Your task to perform on an android device: allow cookies in the chrome app Image 0: 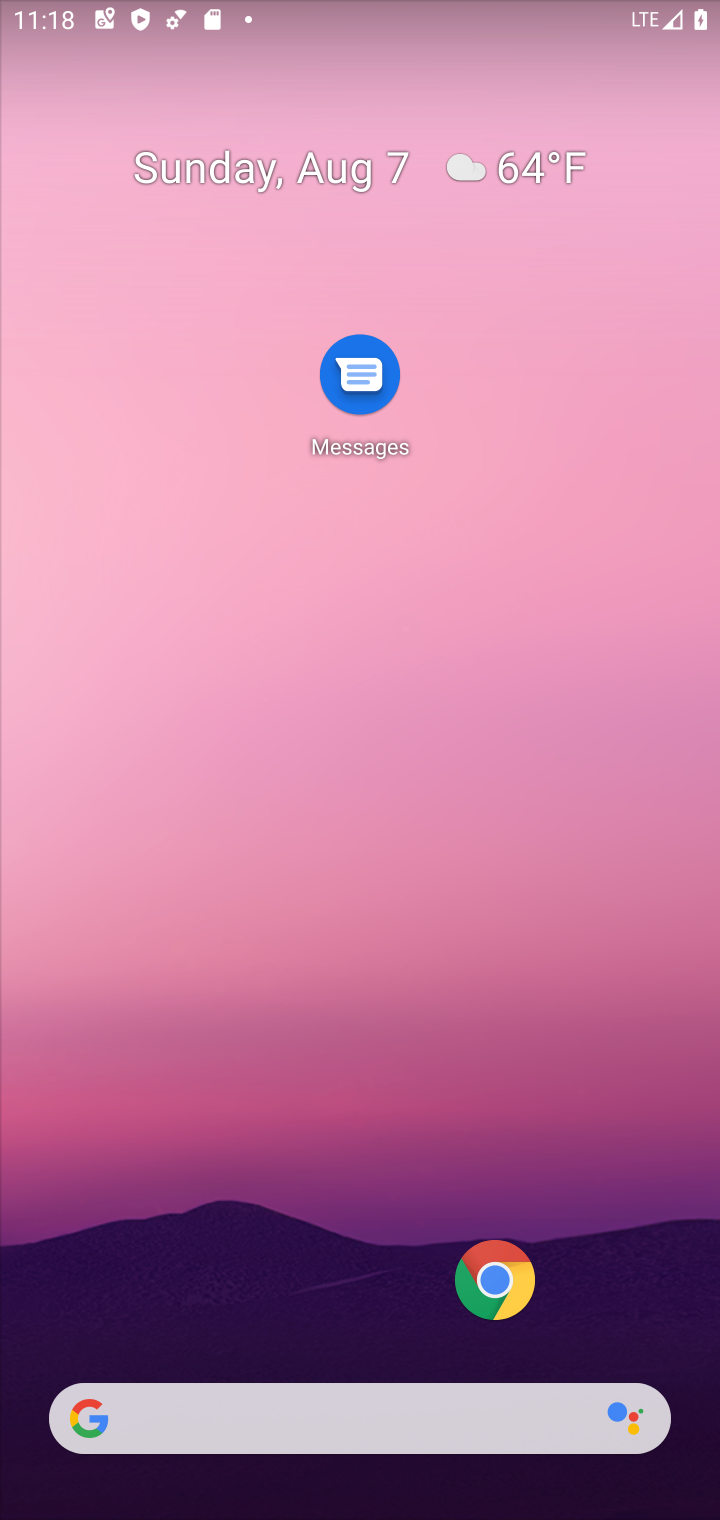
Step 0: click (539, 1259)
Your task to perform on an android device: allow cookies in the chrome app Image 1: 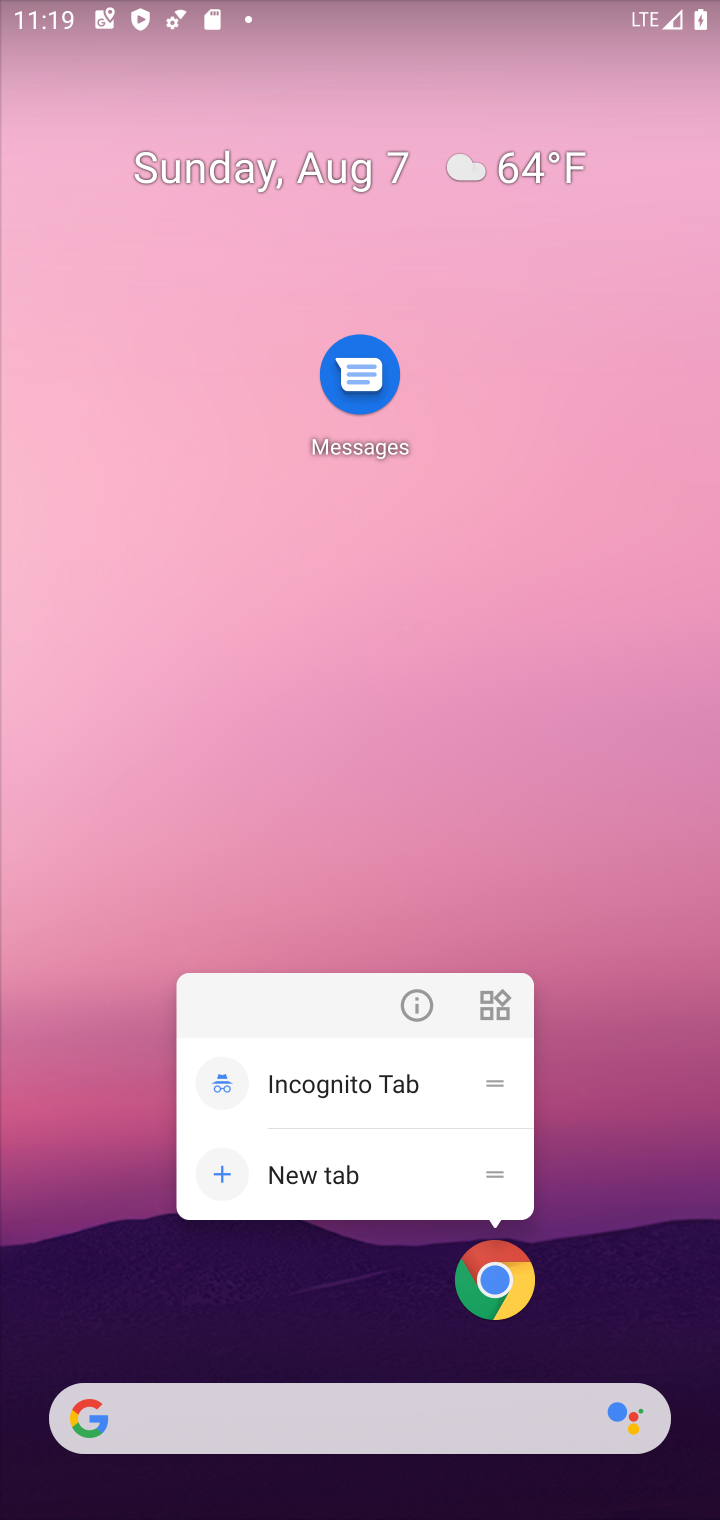
Step 1: click (521, 1313)
Your task to perform on an android device: allow cookies in the chrome app Image 2: 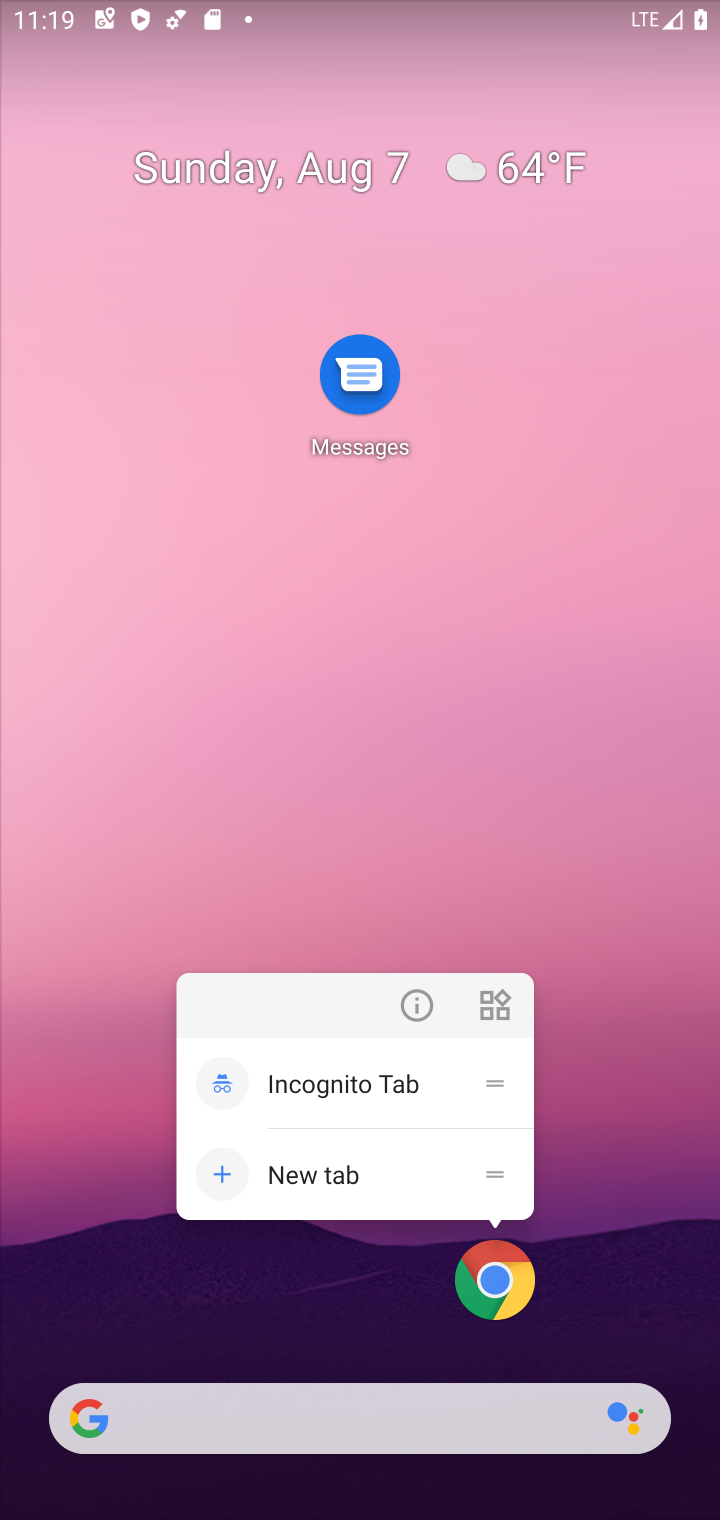
Step 2: click (451, 1305)
Your task to perform on an android device: allow cookies in the chrome app Image 3: 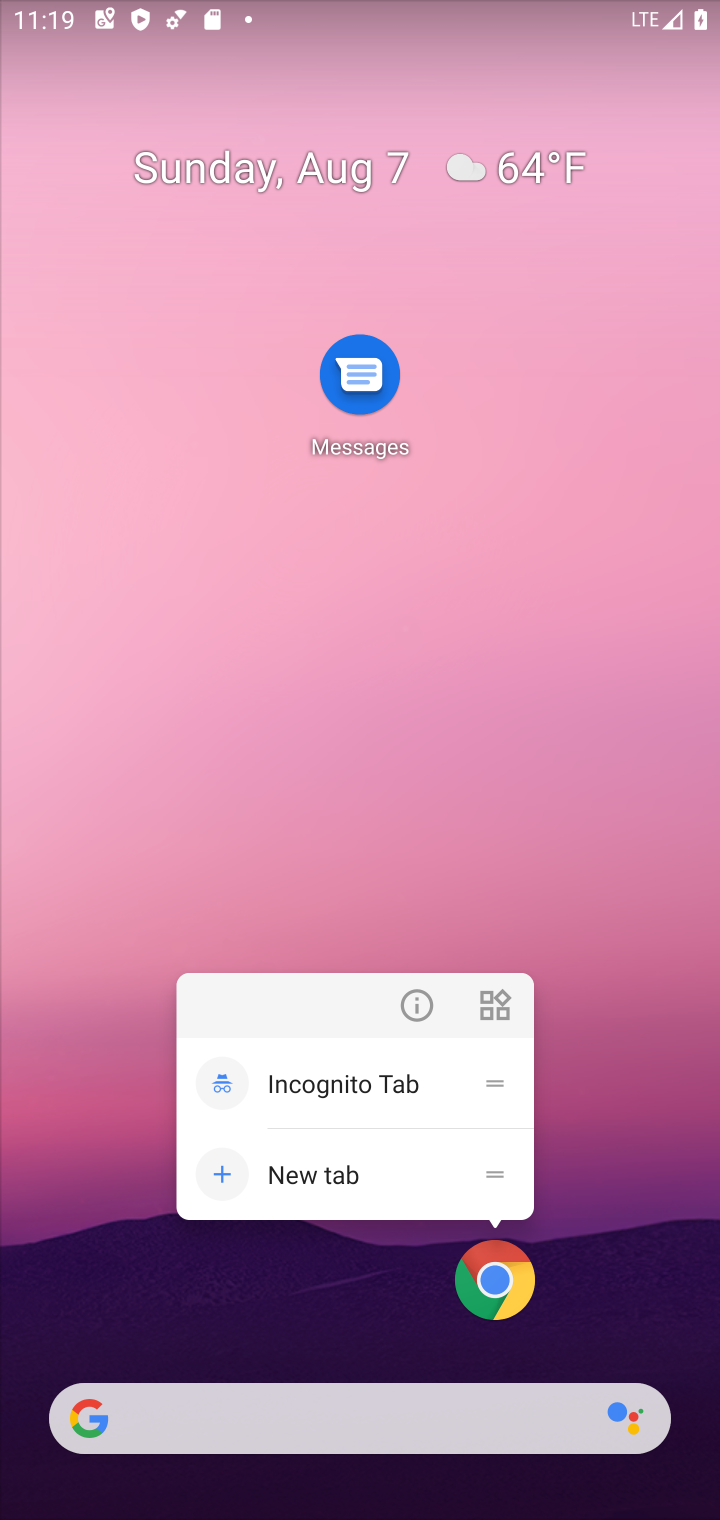
Step 3: click (508, 1288)
Your task to perform on an android device: allow cookies in the chrome app Image 4: 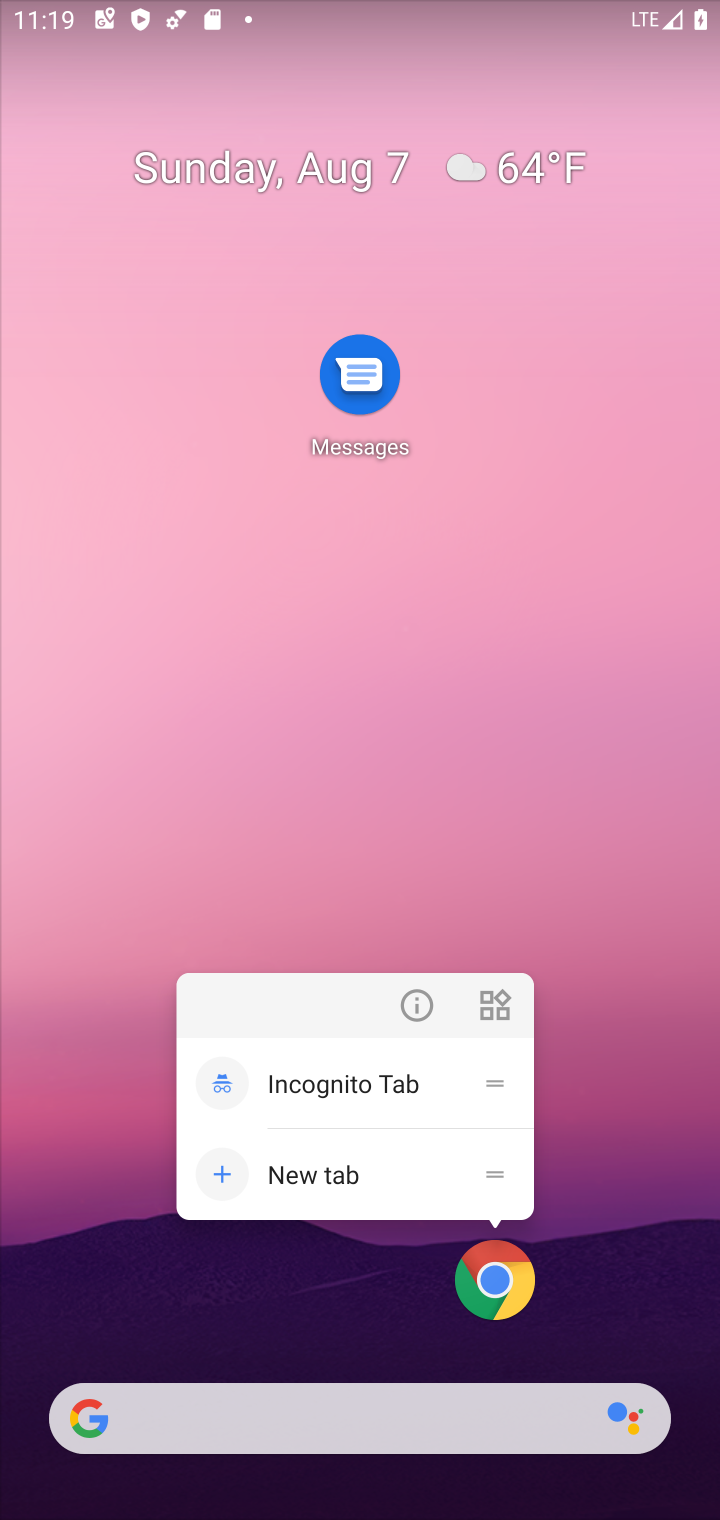
Step 4: click (508, 1288)
Your task to perform on an android device: allow cookies in the chrome app Image 5: 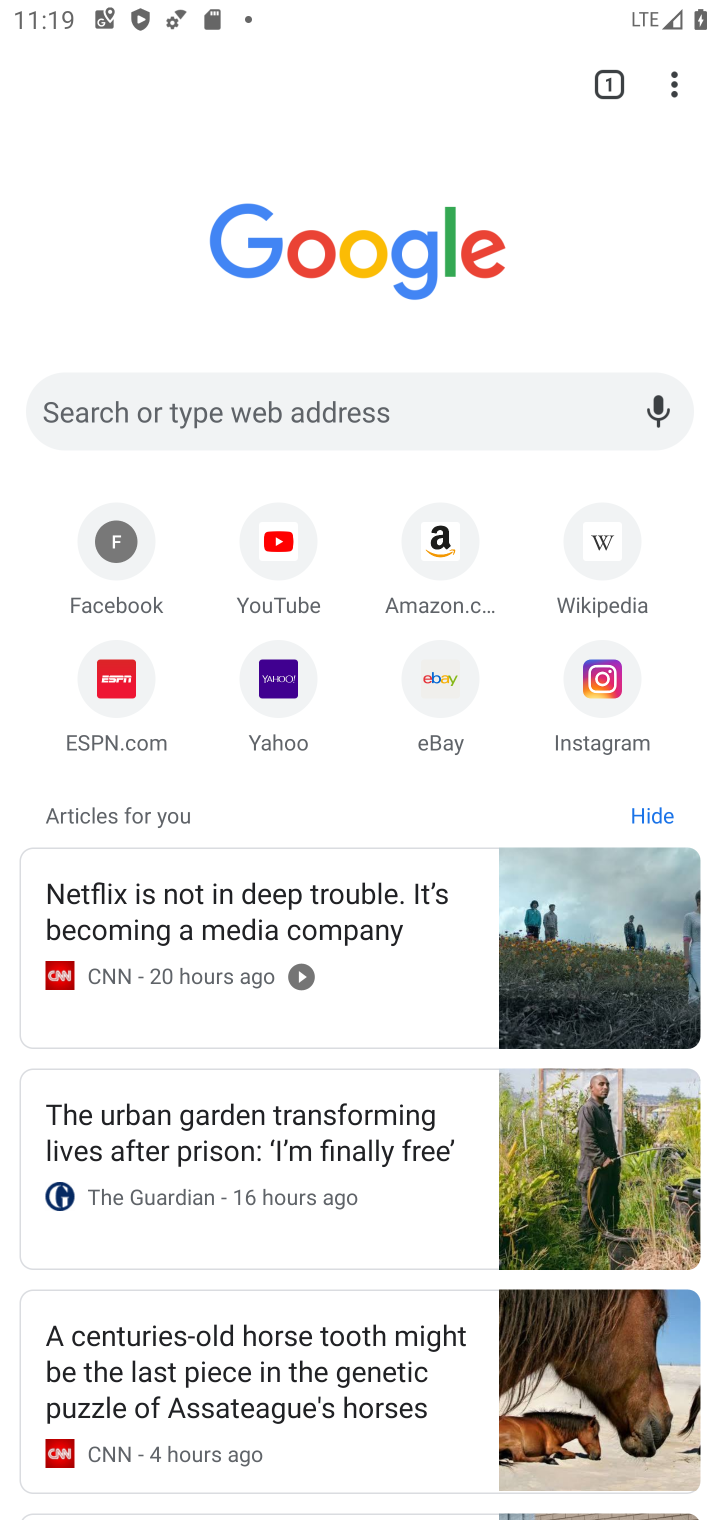
Step 5: click (530, 1259)
Your task to perform on an android device: allow cookies in the chrome app Image 6: 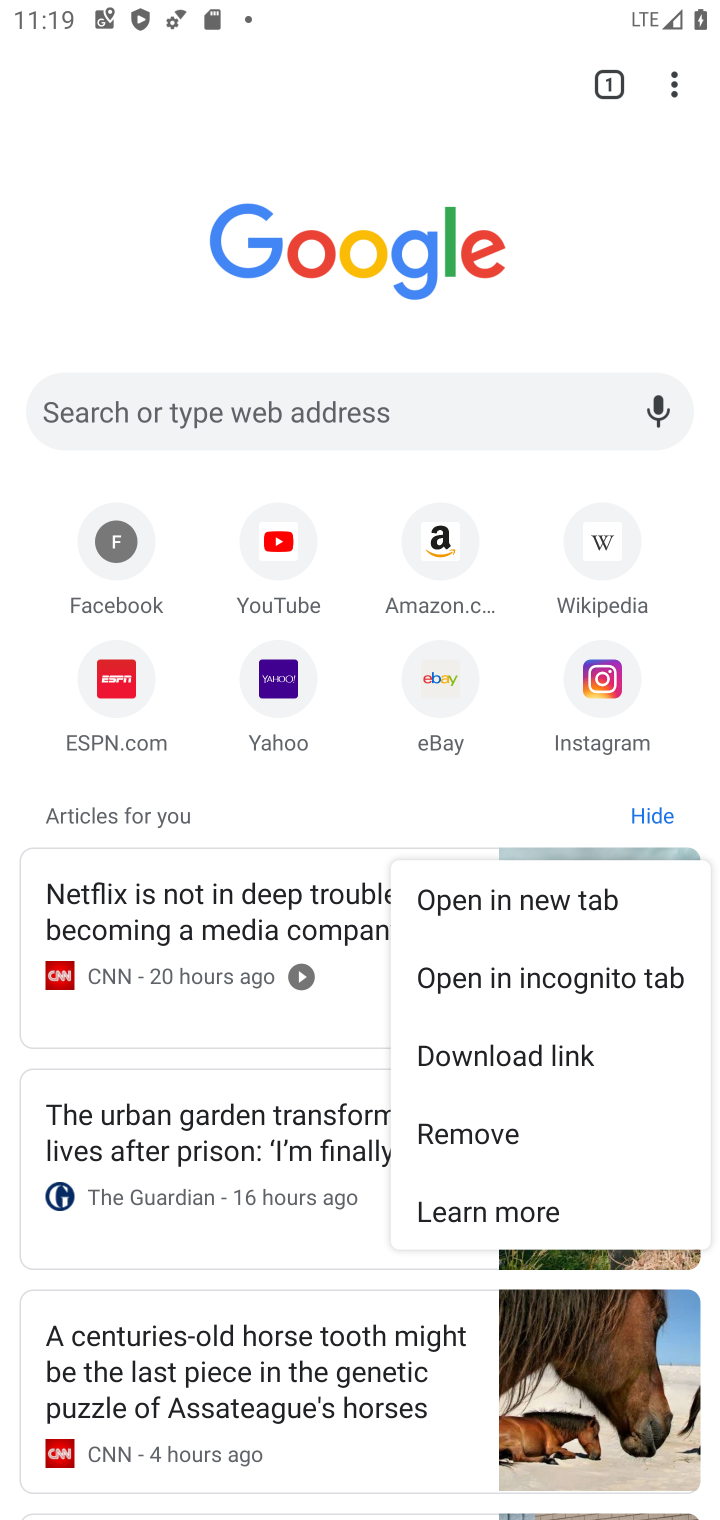
Step 6: click (173, 1279)
Your task to perform on an android device: allow cookies in the chrome app Image 7: 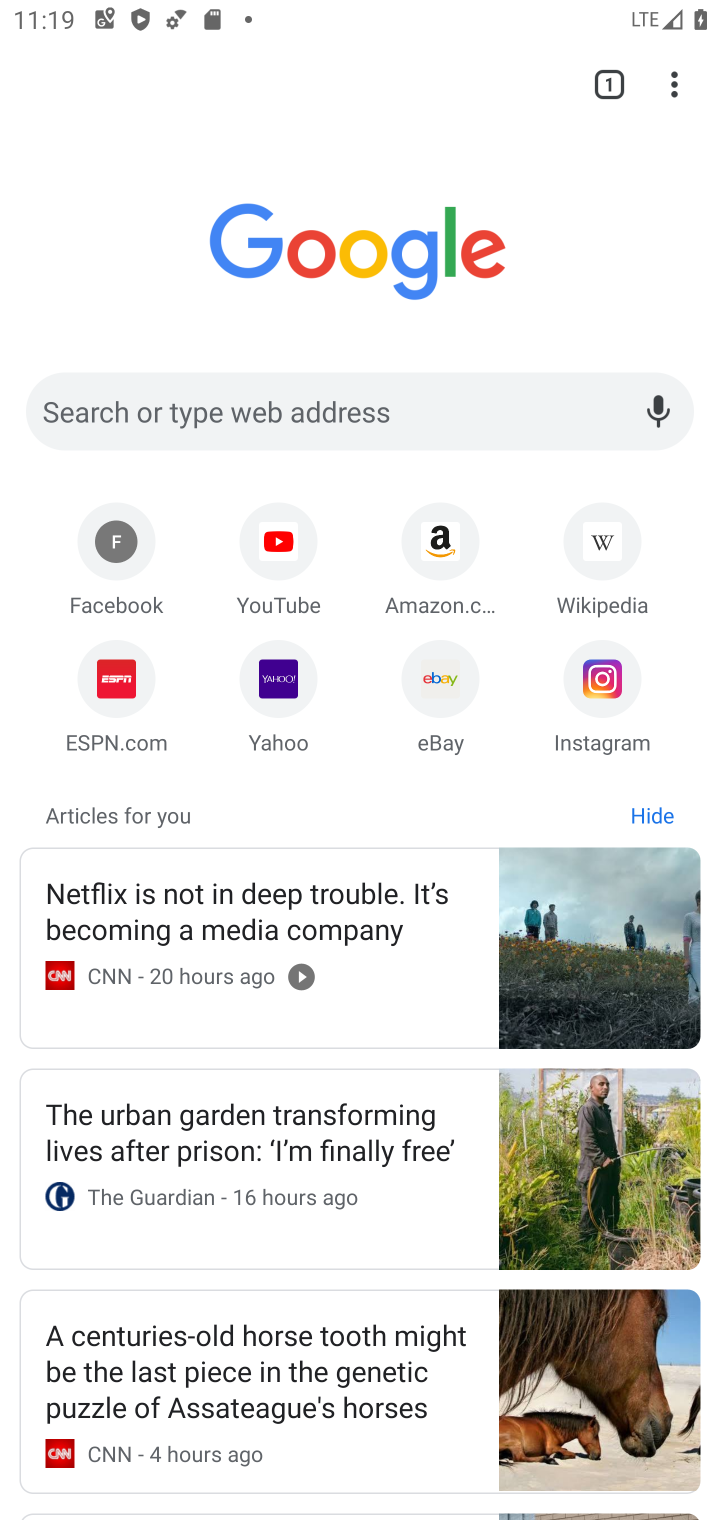
Step 7: drag from (665, 84) to (400, 694)
Your task to perform on an android device: allow cookies in the chrome app Image 8: 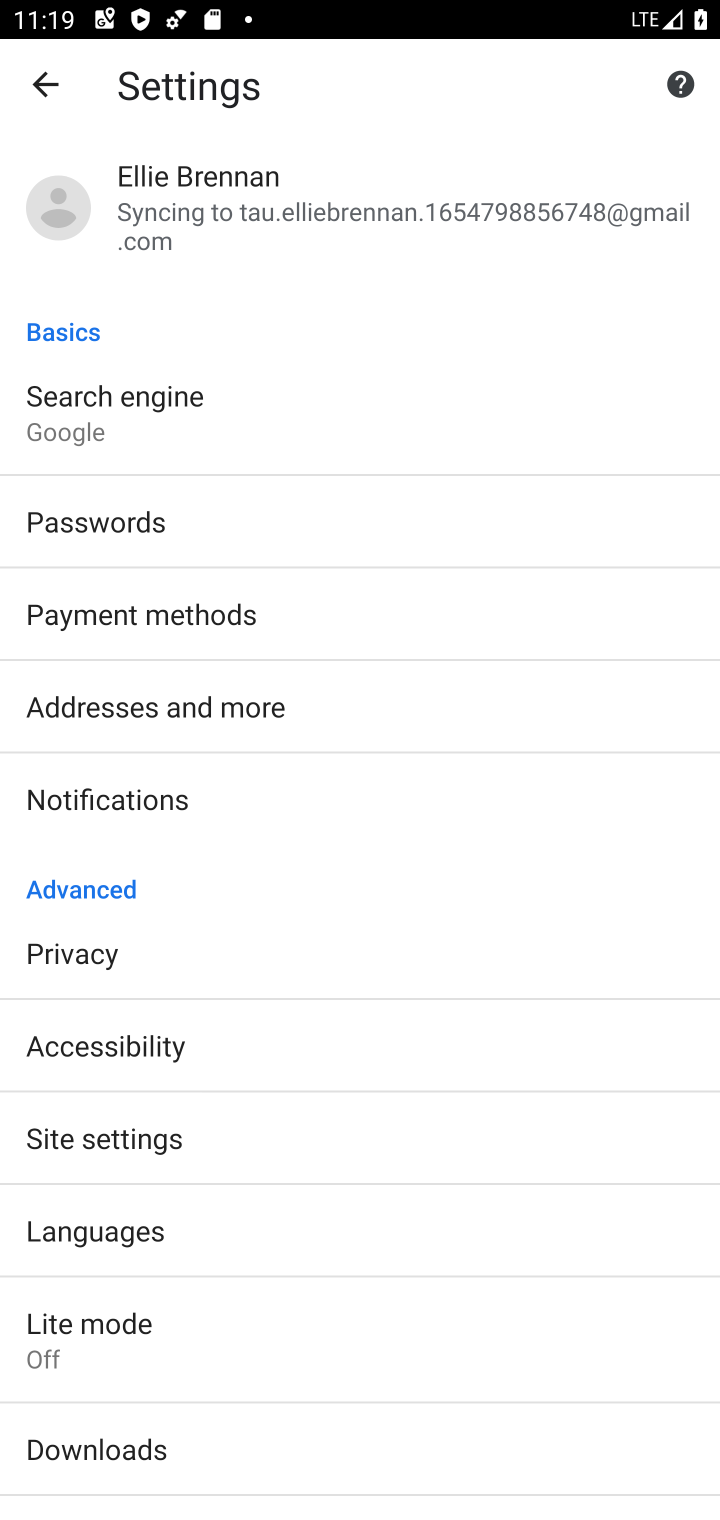
Step 8: click (116, 1150)
Your task to perform on an android device: allow cookies in the chrome app Image 9: 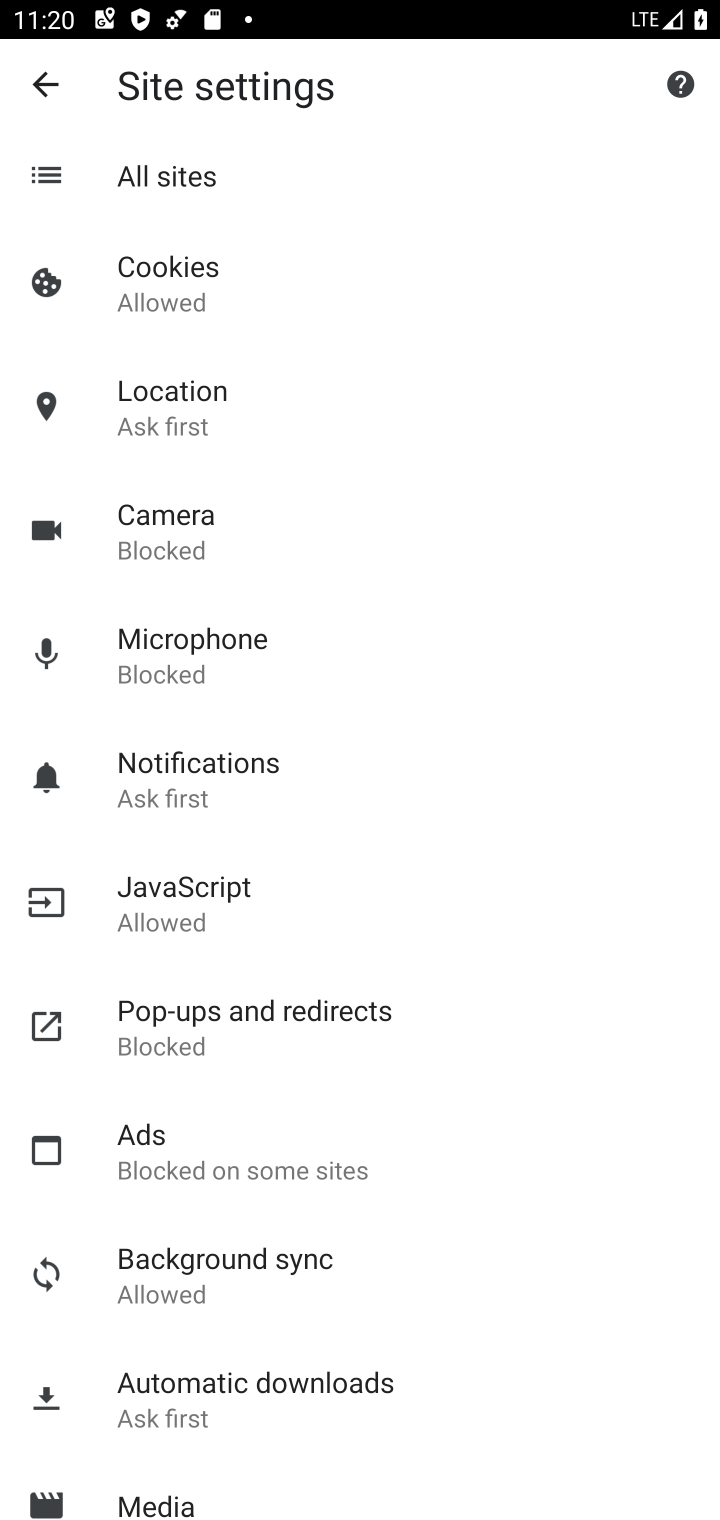
Step 9: click (226, 277)
Your task to perform on an android device: allow cookies in the chrome app Image 10: 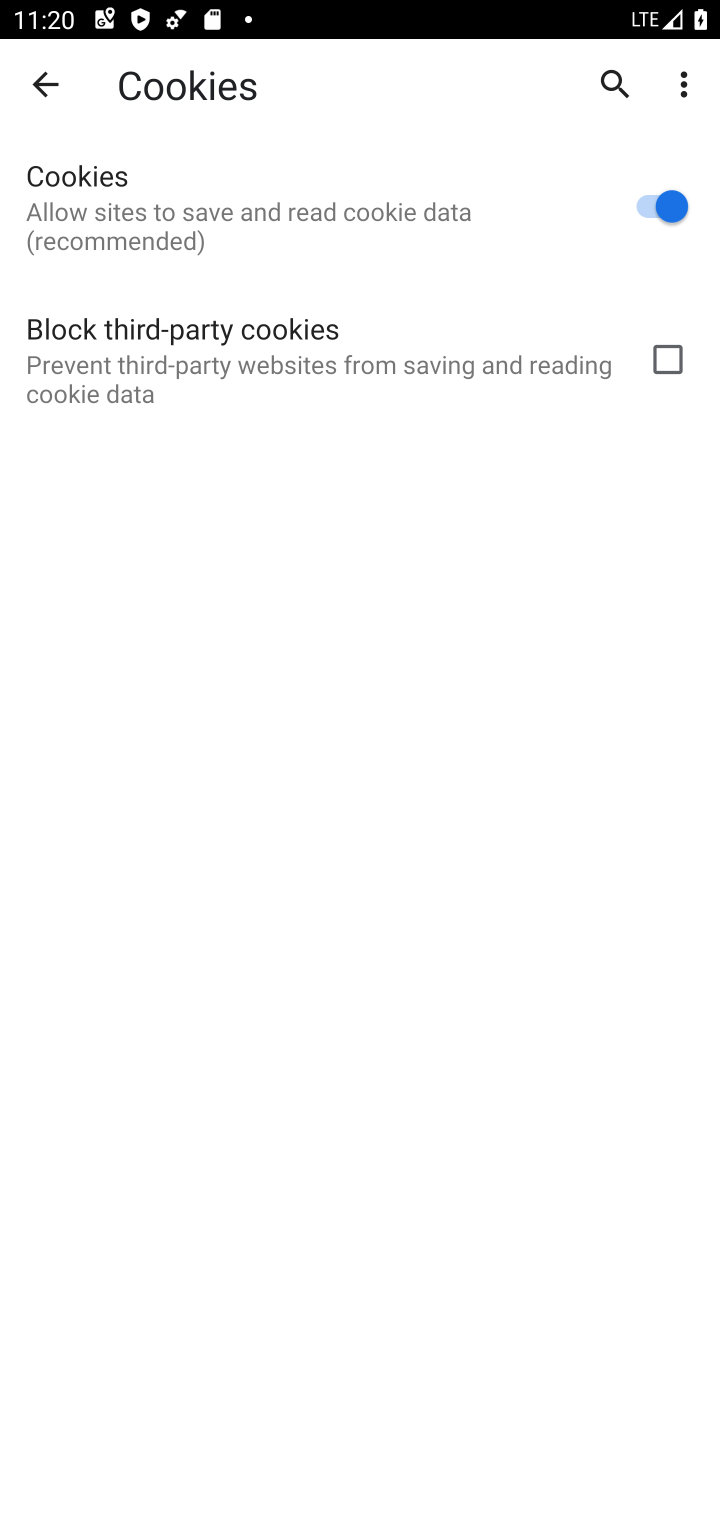
Step 10: task complete